Your task to perform on an android device: turn vacation reply on in the gmail app Image 0: 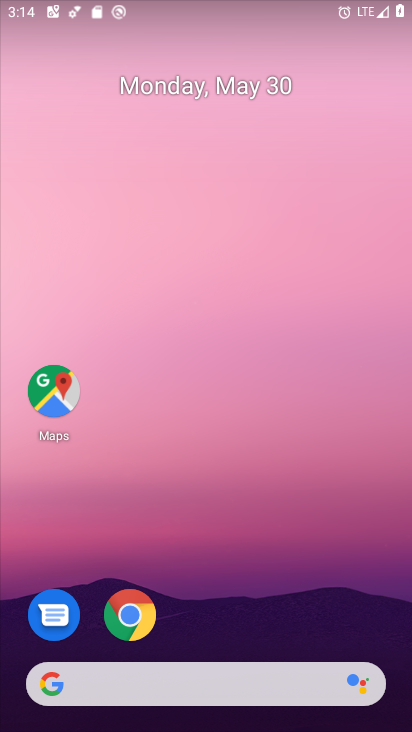
Step 0: drag from (238, 559) to (260, 110)
Your task to perform on an android device: turn vacation reply on in the gmail app Image 1: 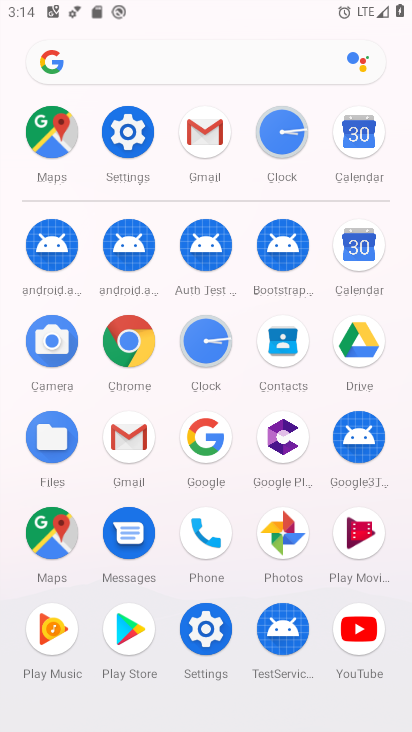
Step 1: click (201, 133)
Your task to perform on an android device: turn vacation reply on in the gmail app Image 2: 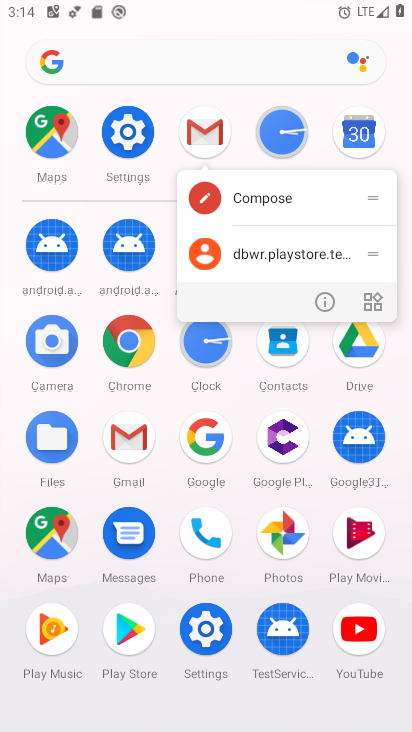
Step 2: click (211, 116)
Your task to perform on an android device: turn vacation reply on in the gmail app Image 3: 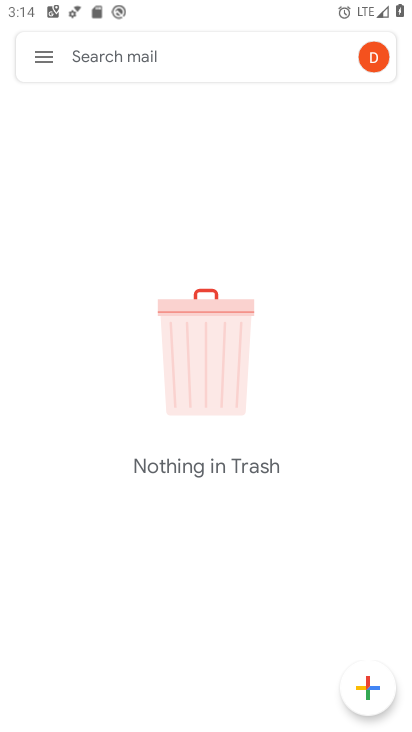
Step 3: click (43, 52)
Your task to perform on an android device: turn vacation reply on in the gmail app Image 4: 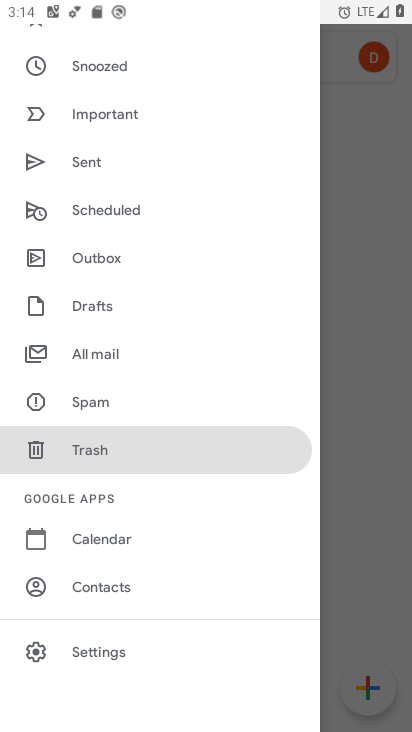
Step 4: click (138, 643)
Your task to perform on an android device: turn vacation reply on in the gmail app Image 5: 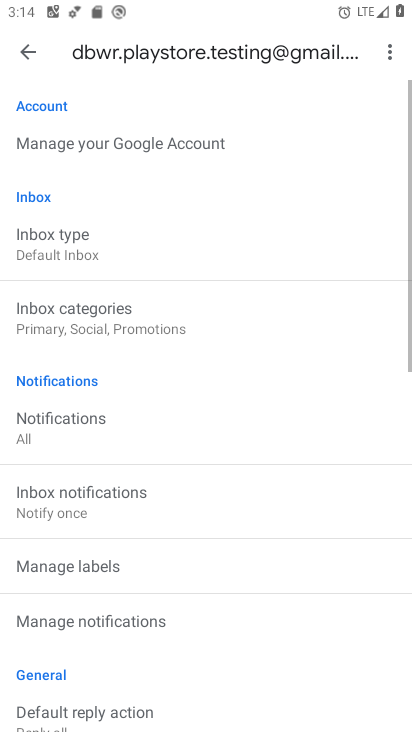
Step 5: drag from (222, 536) to (210, 191)
Your task to perform on an android device: turn vacation reply on in the gmail app Image 6: 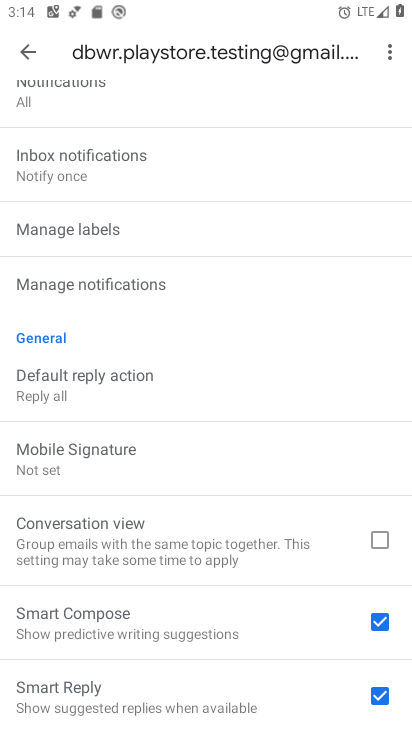
Step 6: drag from (176, 460) to (200, 139)
Your task to perform on an android device: turn vacation reply on in the gmail app Image 7: 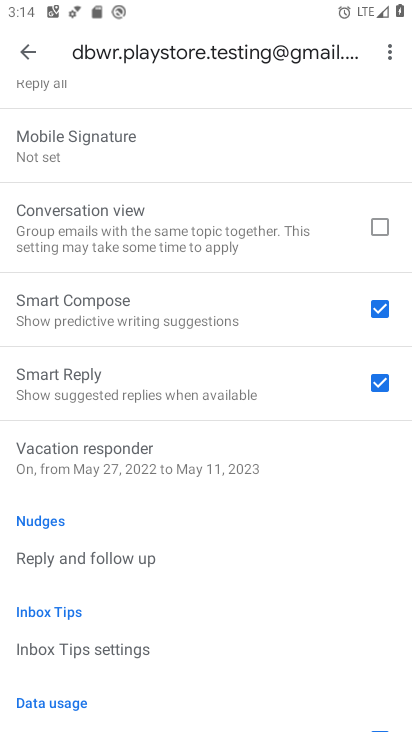
Step 7: click (180, 457)
Your task to perform on an android device: turn vacation reply on in the gmail app Image 8: 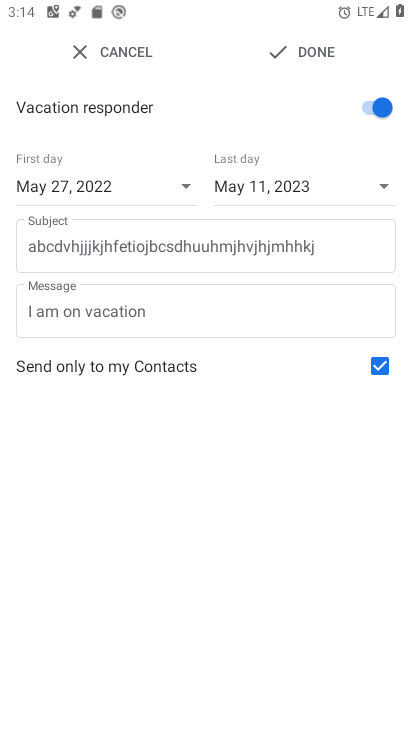
Step 8: task complete